Your task to perform on an android device: Open Chrome and go to settings Image 0: 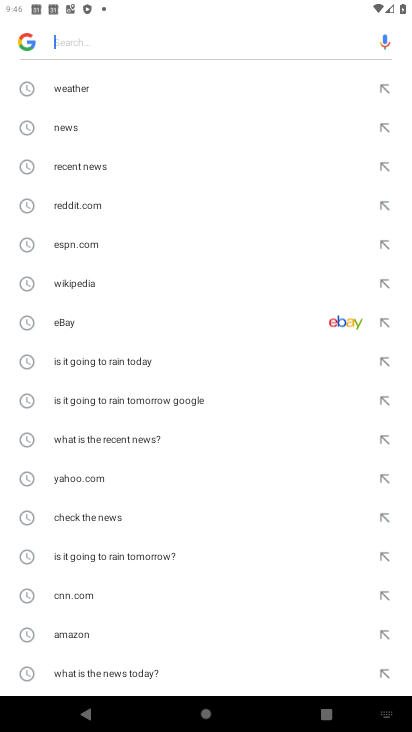
Step 0: press home button
Your task to perform on an android device: Open Chrome and go to settings Image 1: 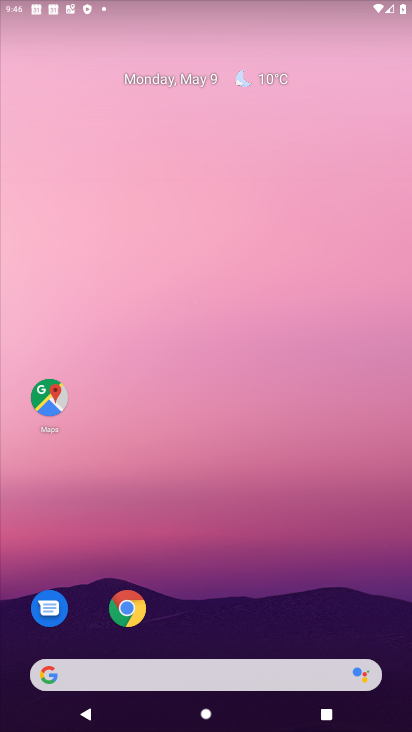
Step 1: drag from (339, 581) to (407, 5)
Your task to perform on an android device: Open Chrome and go to settings Image 2: 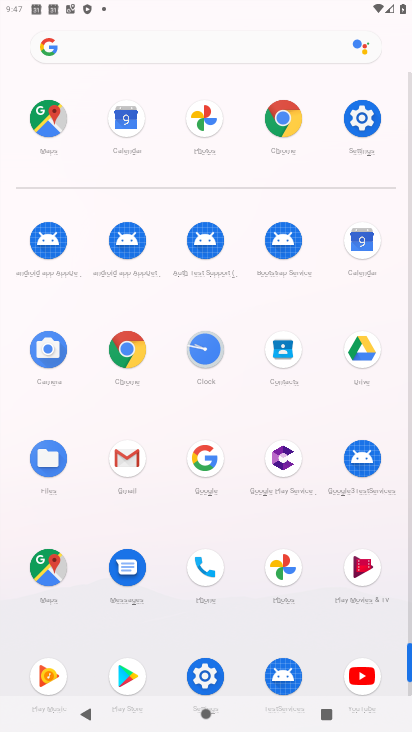
Step 2: click (290, 124)
Your task to perform on an android device: Open Chrome and go to settings Image 3: 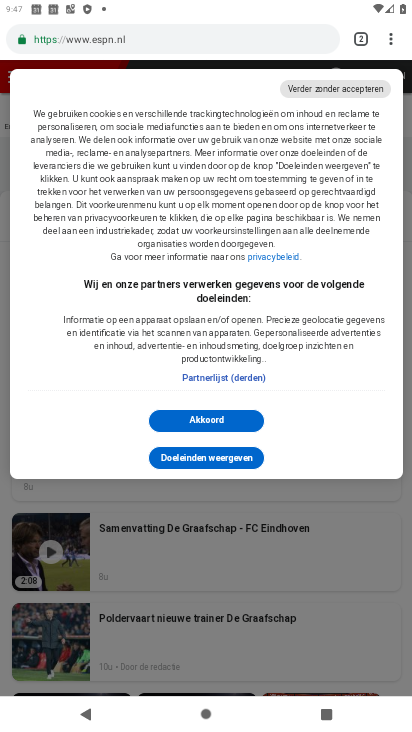
Step 3: task complete